Your task to perform on an android device: Open Wikipedia Image 0: 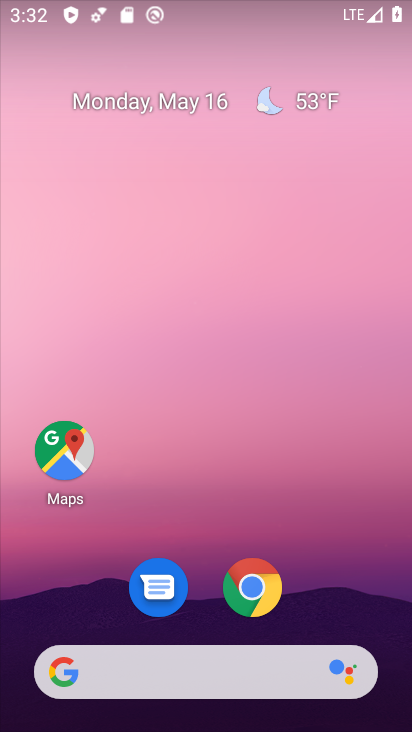
Step 0: click (247, 583)
Your task to perform on an android device: Open Wikipedia Image 1: 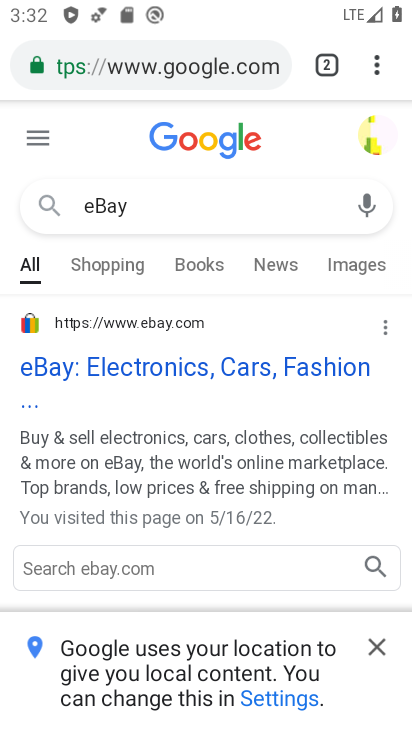
Step 1: drag from (380, 71) to (328, 203)
Your task to perform on an android device: Open Wikipedia Image 2: 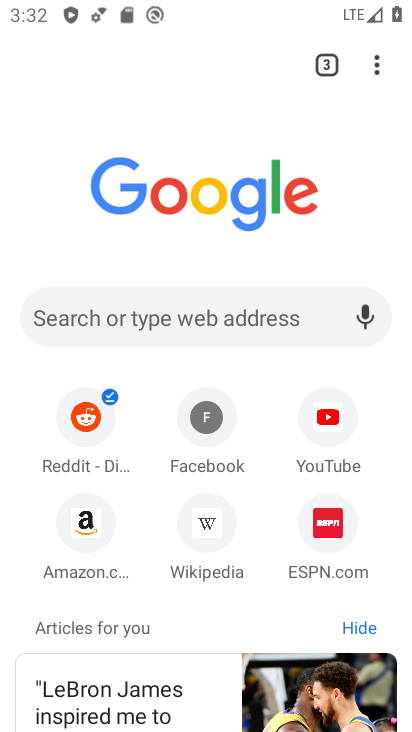
Step 2: click (218, 524)
Your task to perform on an android device: Open Wikipedia Image 3: 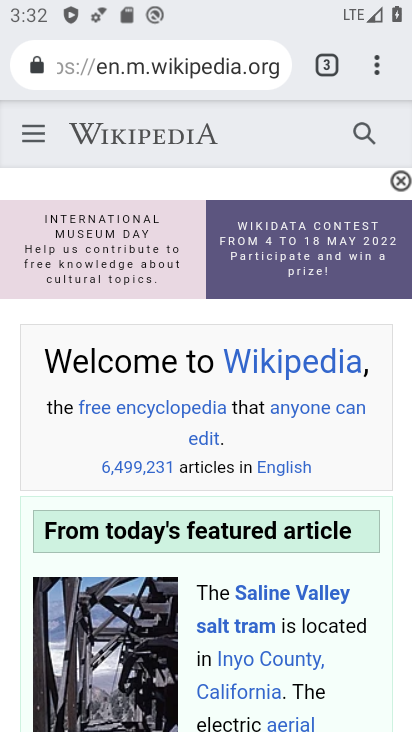
Step 3: task complete